Your task to perform on an android device: Clear the shopping cart on newegg. Search for "dell xps" on newegg, select the first entry, add it to the cart, then select checkout. Image 0: 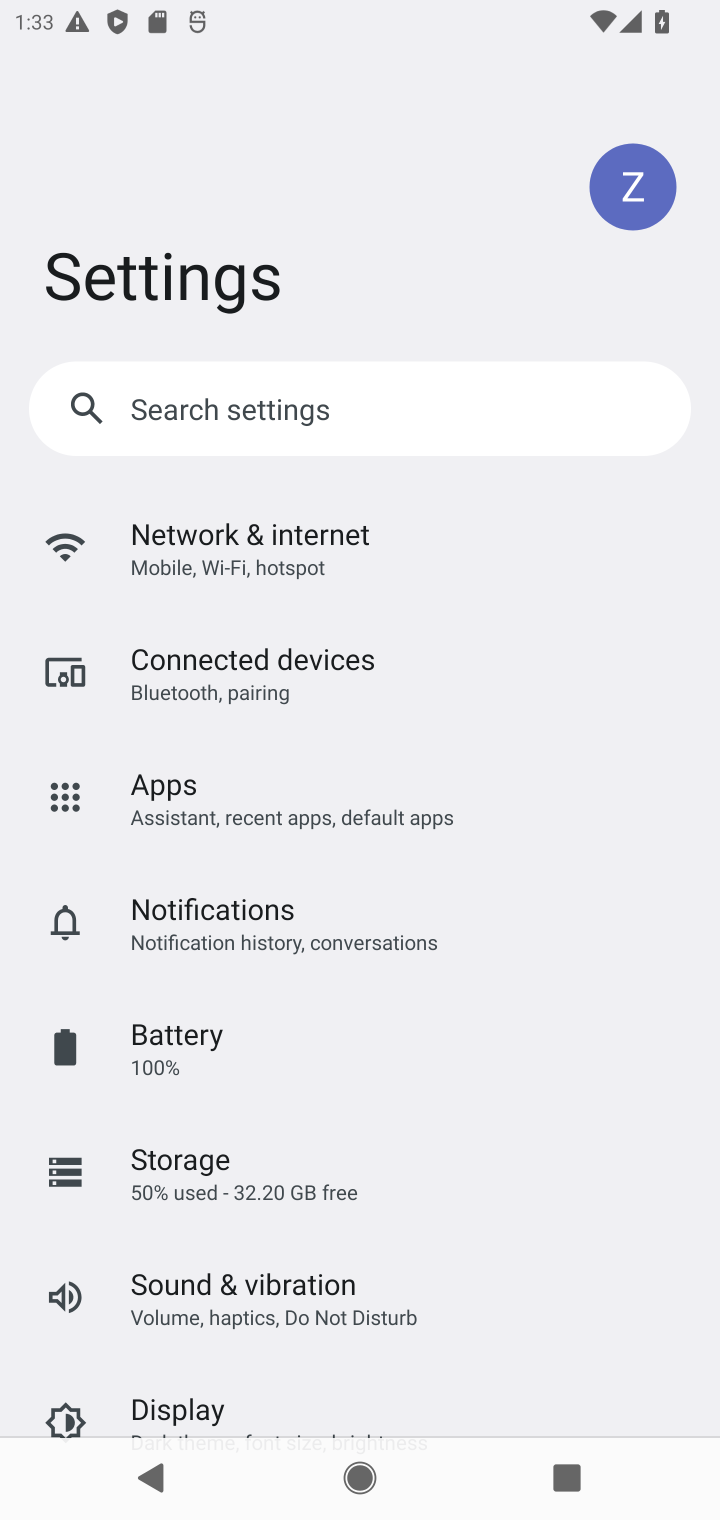
Step 0: press home button
Your task to perform on an android device: Clear the shopping cart on newegg. Search for "dell xps" on newegg, select the first entry, add it to the cart, then select checkout. Image 1: 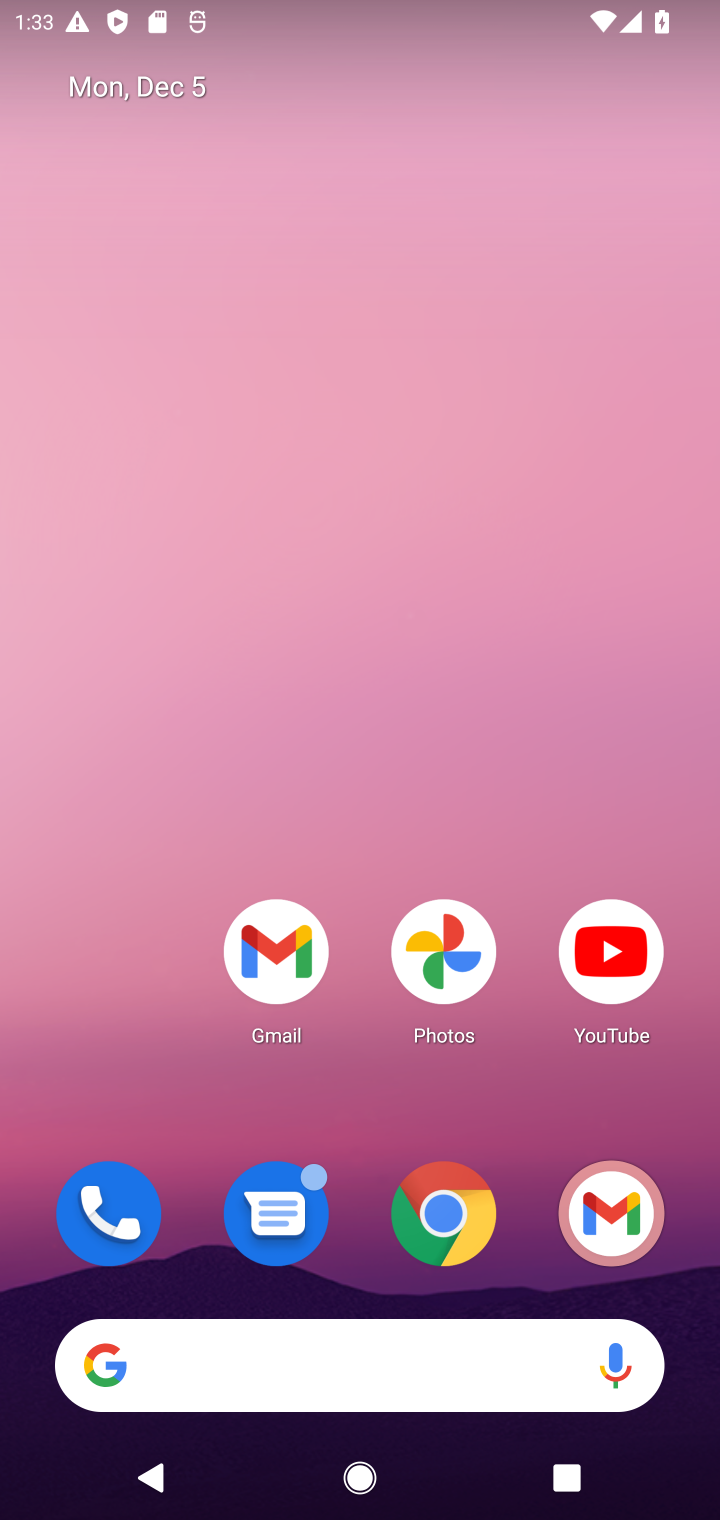
Step 1: click (453, 1223)
Your task to perform on an android device: Clear the shopping cart on newegg. Search for "dell xps" on newegg, select the first entry, add it to the cart, then select checkout. Image 2: 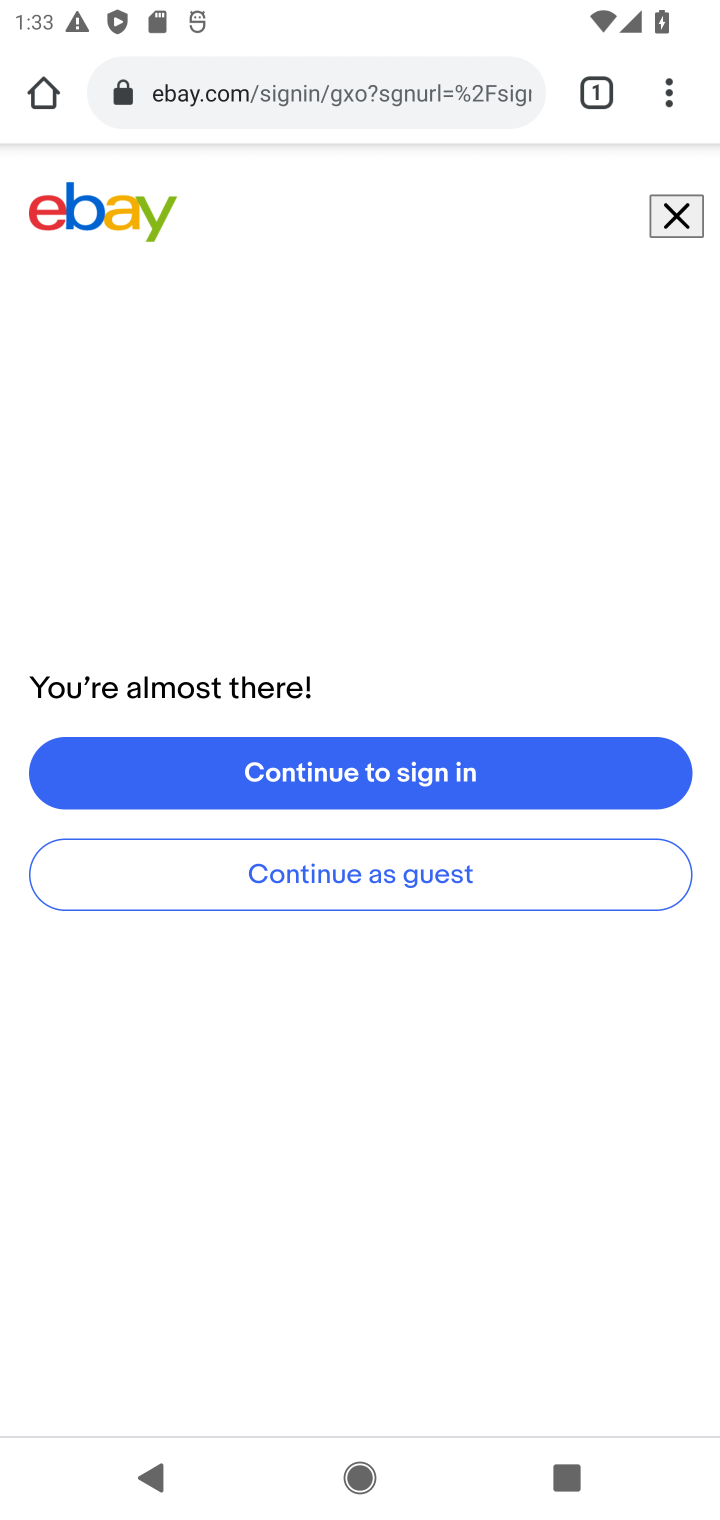
Step 2: click (297, 90)
Your task to perform on an android device: Clear the shopping cart on newegg. Search for "dell xps" on newegg, select the first entry, add it to the cart, then select checkout. Image 3: 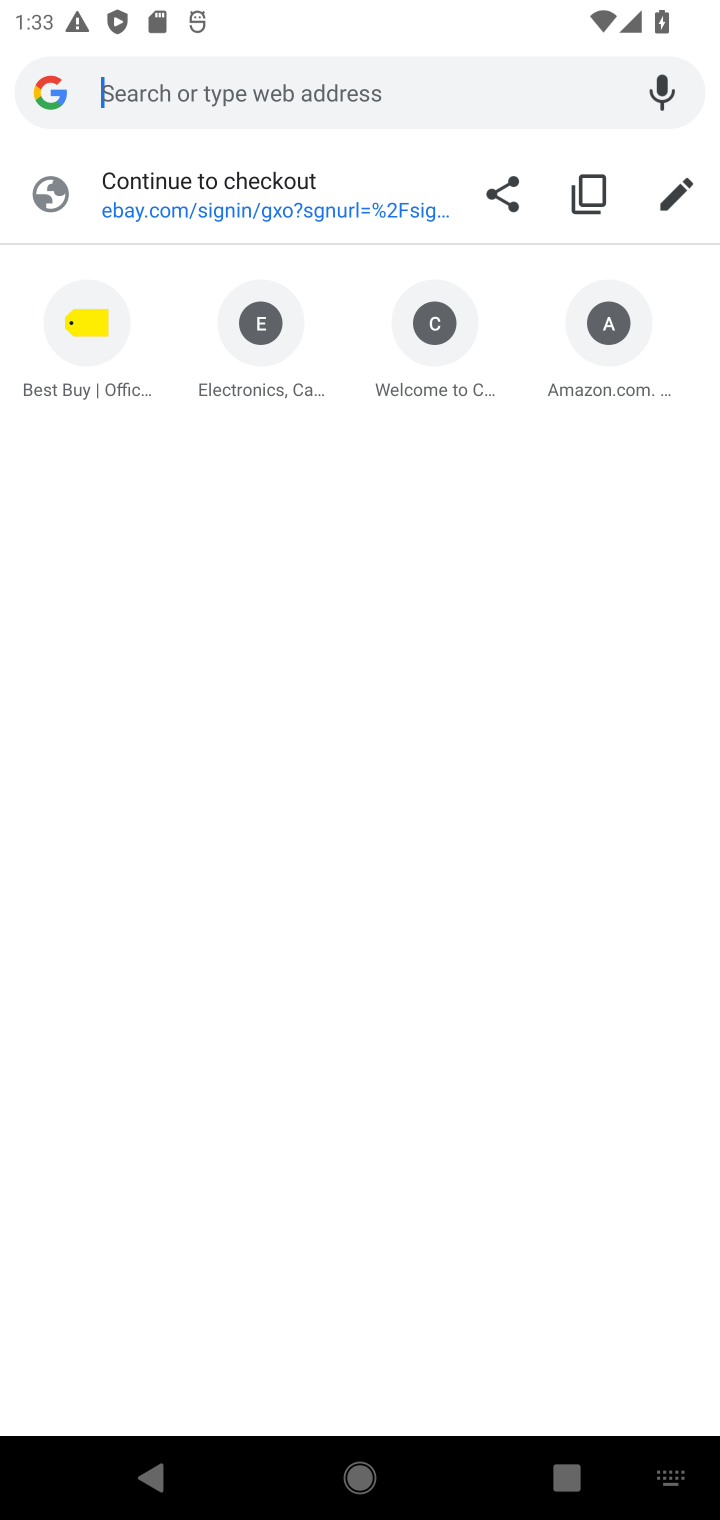
Step 3: type "newegg.com"
Your task to perform on an android device: Clear the shopping cart on newegg. Search for "dell xps" on newegg, select the first entry, add it to the cart, then select checkout. Image 4: 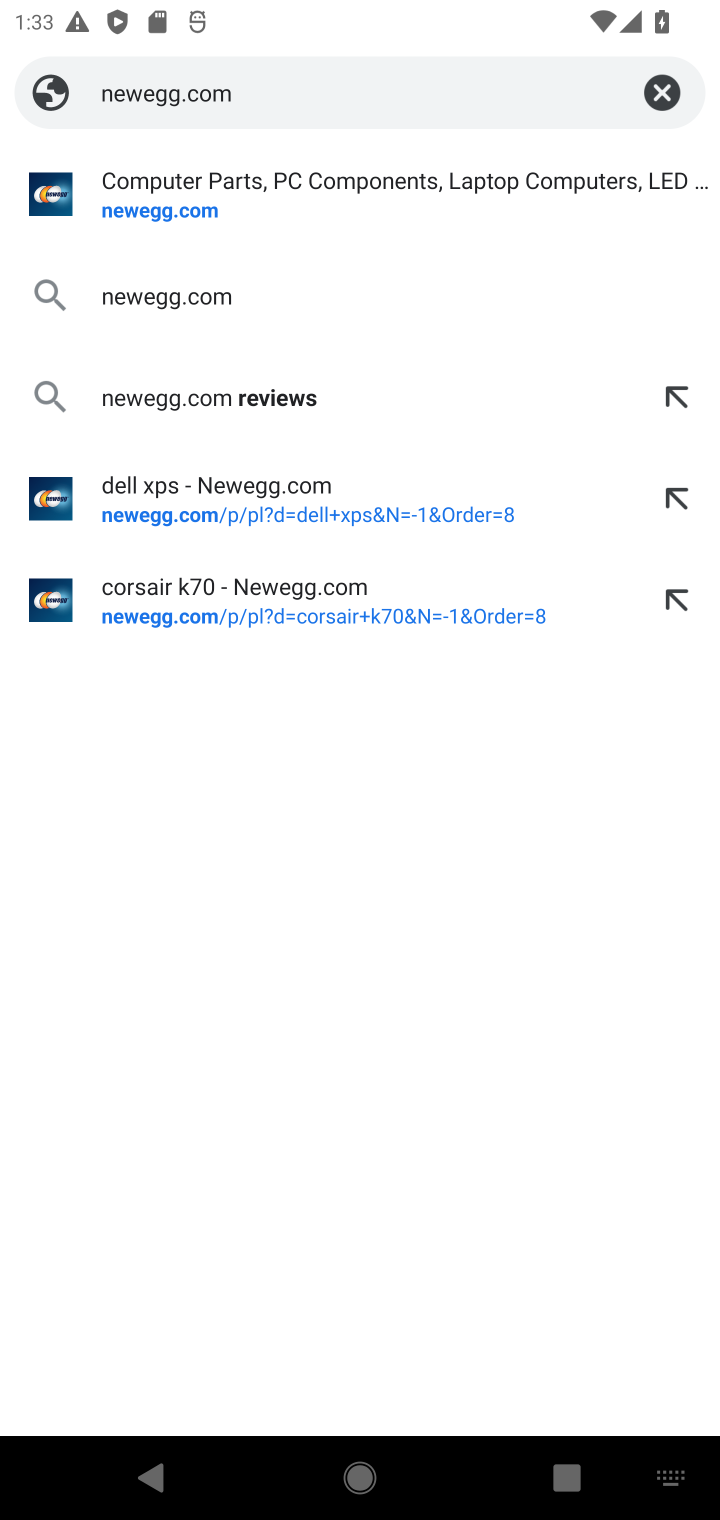
Step 4: click (152, 221)
Your task to perform on an android device: Clear the shopping cart on newegg. Search for "dell xps" on newegg, select the first entry, add it to the cart, then select checkout. Image 5: 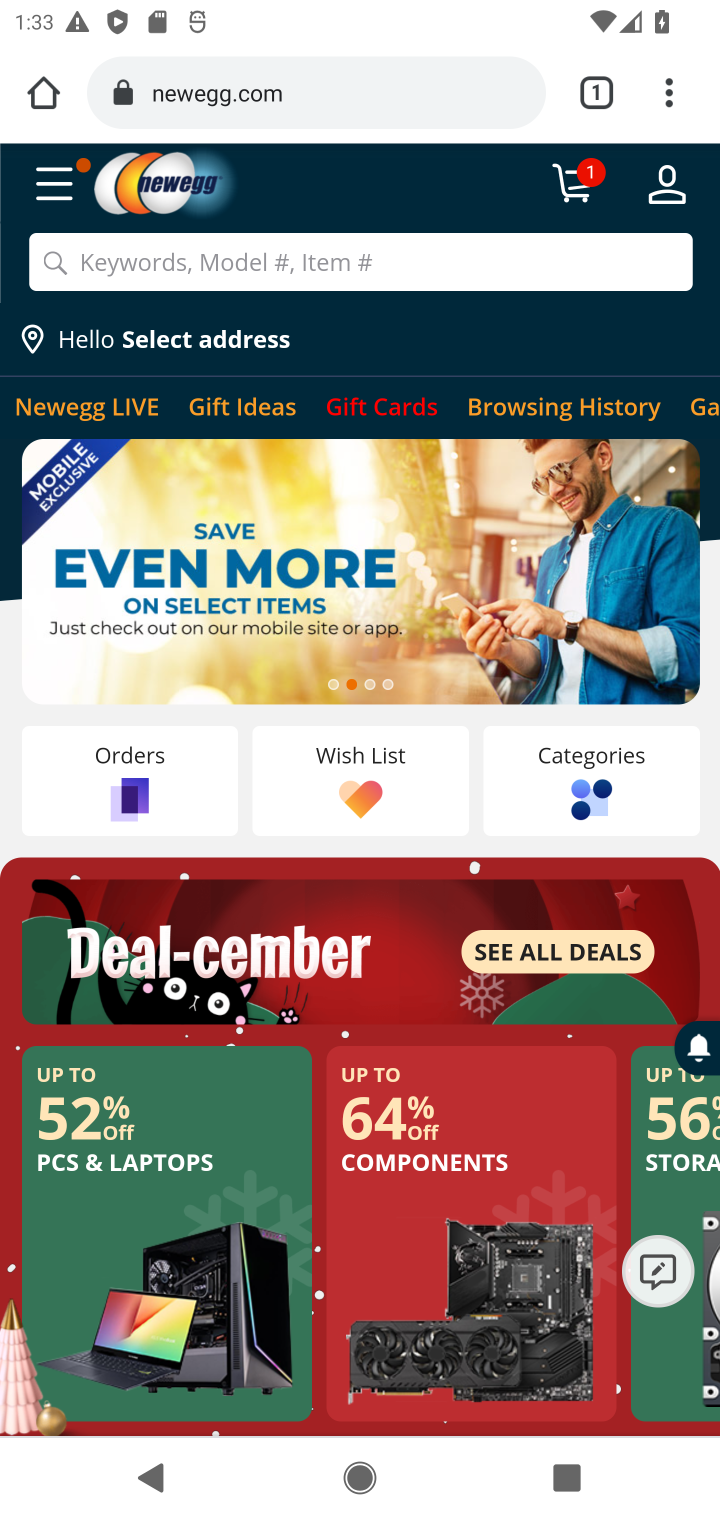
Step 5: click (583, 198)
Your task to perform on an android device: Clear the shopping cart on newegg. Search for "dell xps" on newegg, select the first entry, add it to the cart, then select checkout. Image 6: 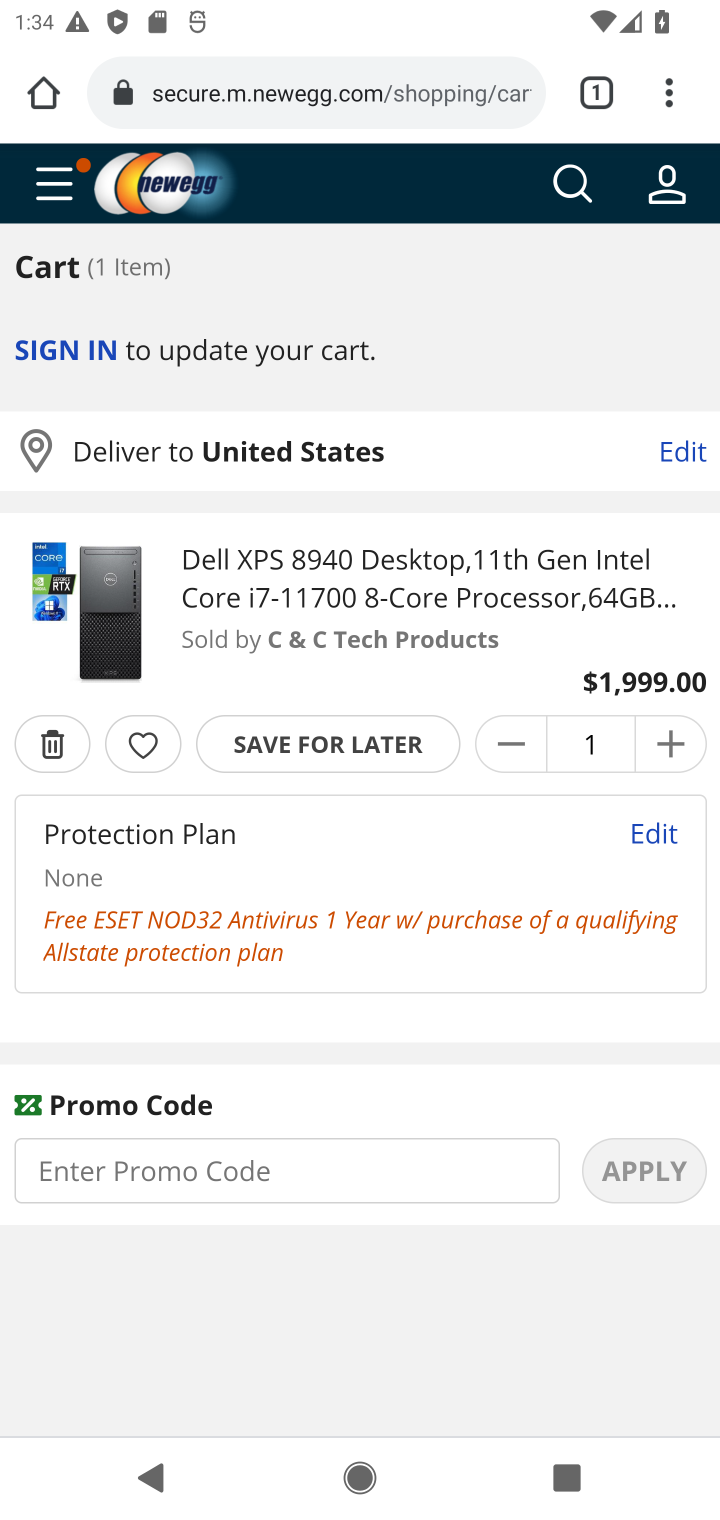
Step 6: click (53, 762)
Your task to perform on an android device: Clear the shopping cart on newegg. Search for "dell xps" on newegg, select the first entry, add it to the cart, then select checkout. Image 7: 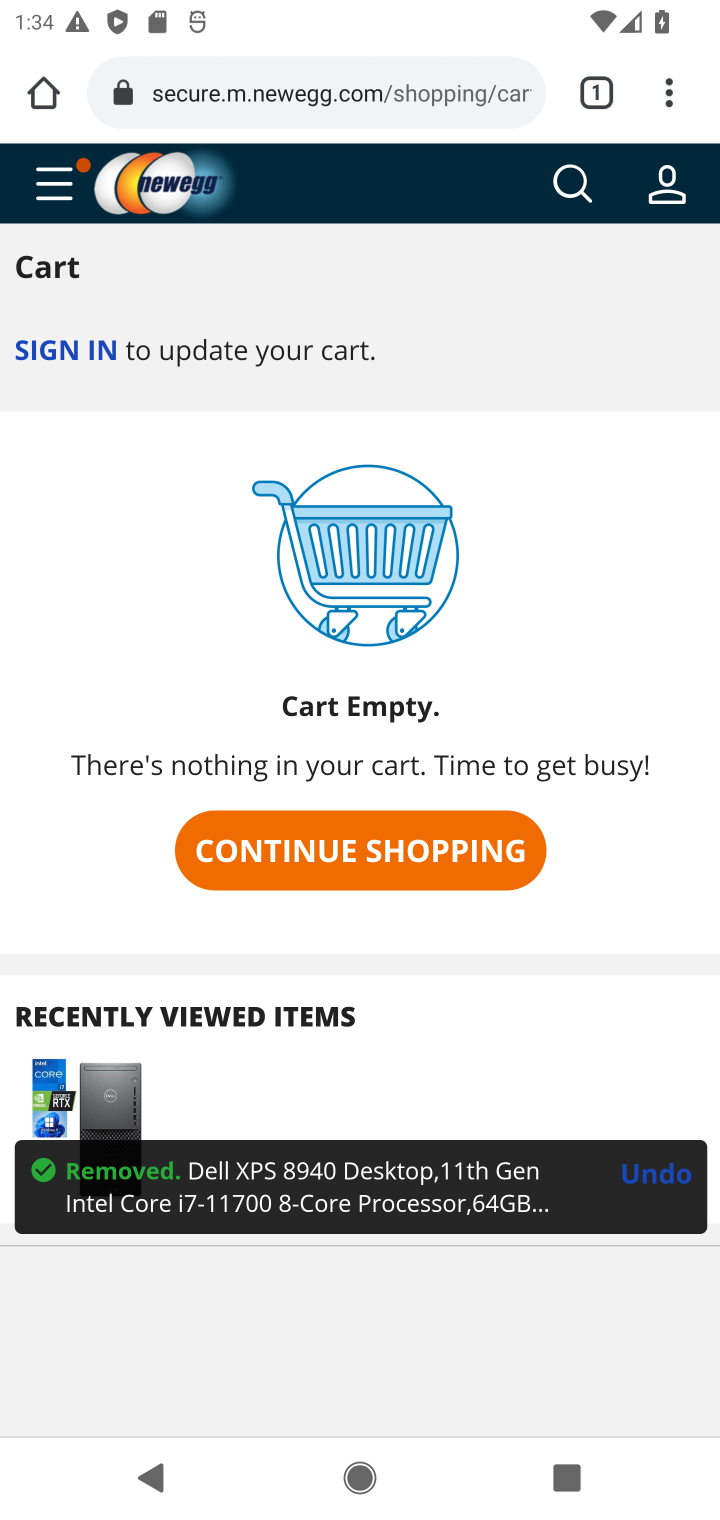
Step 7: click (564, 176)
Your task to perform on an android device: Clear the shopping cart on newegg. Search for "dell xps" on newegg, select the first entry, add it to the cart, then select checkout. Image 8: 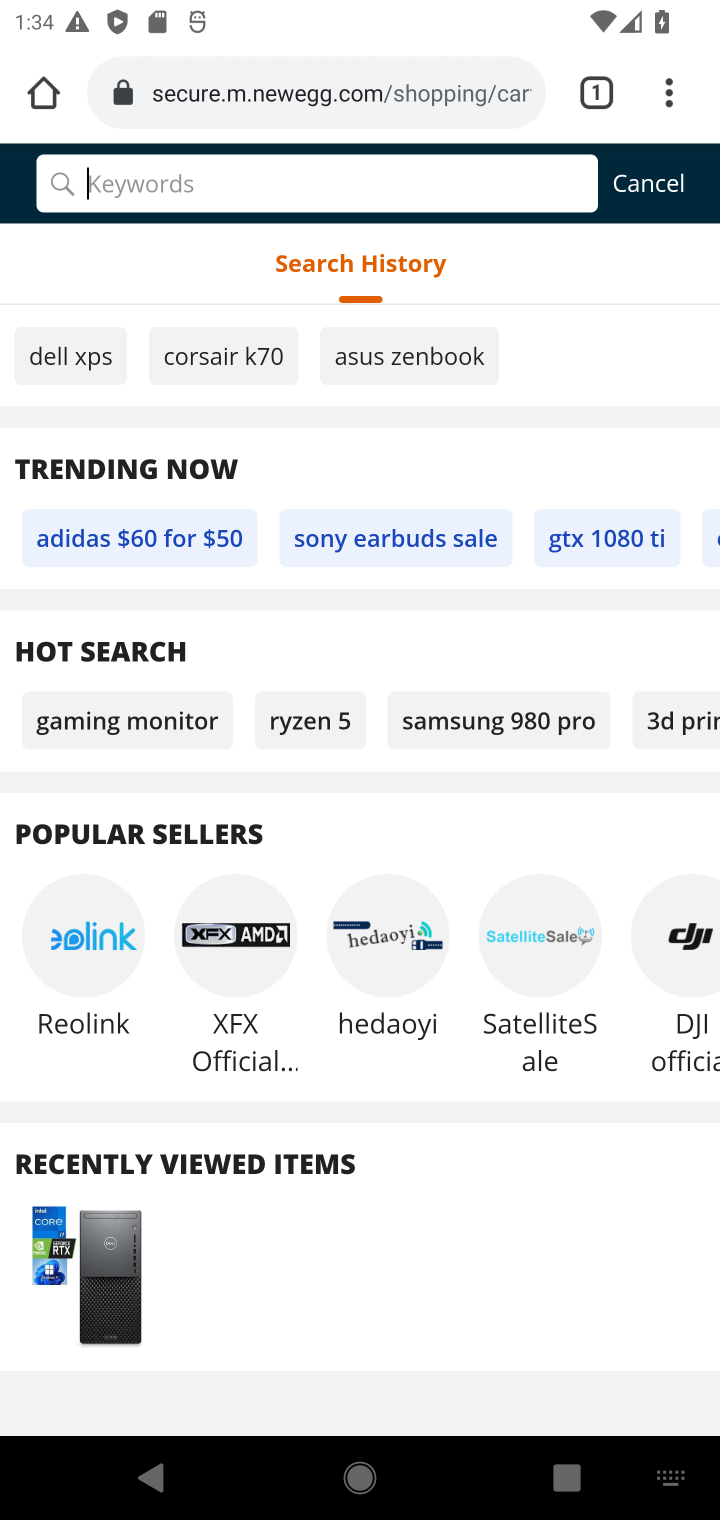
Step 8: type "dell xps"
Your task to perform on an android device: Clear the shopping cart on newegg. Search for "dell xps" on newegg, select the first entry, add it to the cart, then select checkout. Image 9: 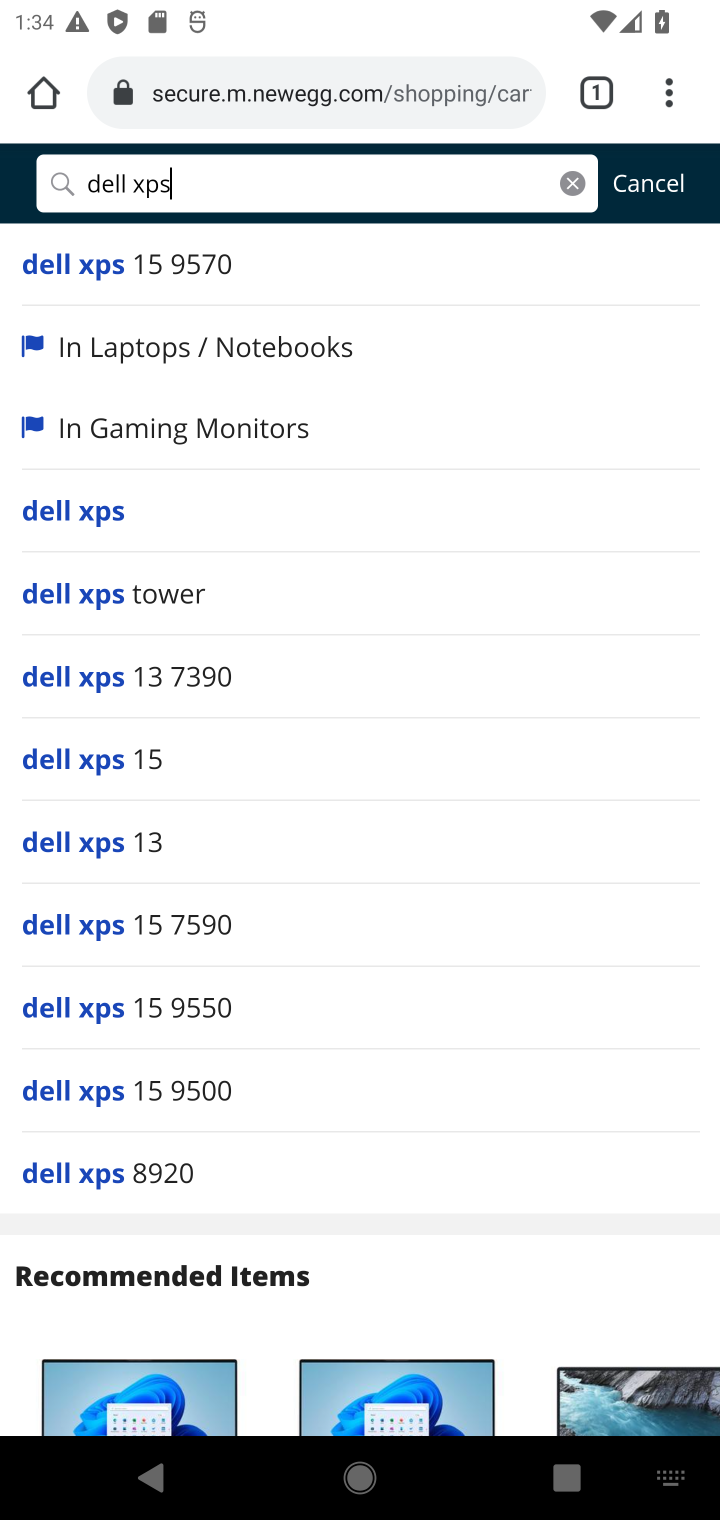
Step 9: click (101, 521)
Your task to perform on an android device: Clear the shopping cart on newegg. Search for "dell xps" on newegg, select the first entry, add it to the cart, then select checkout. Image 10: 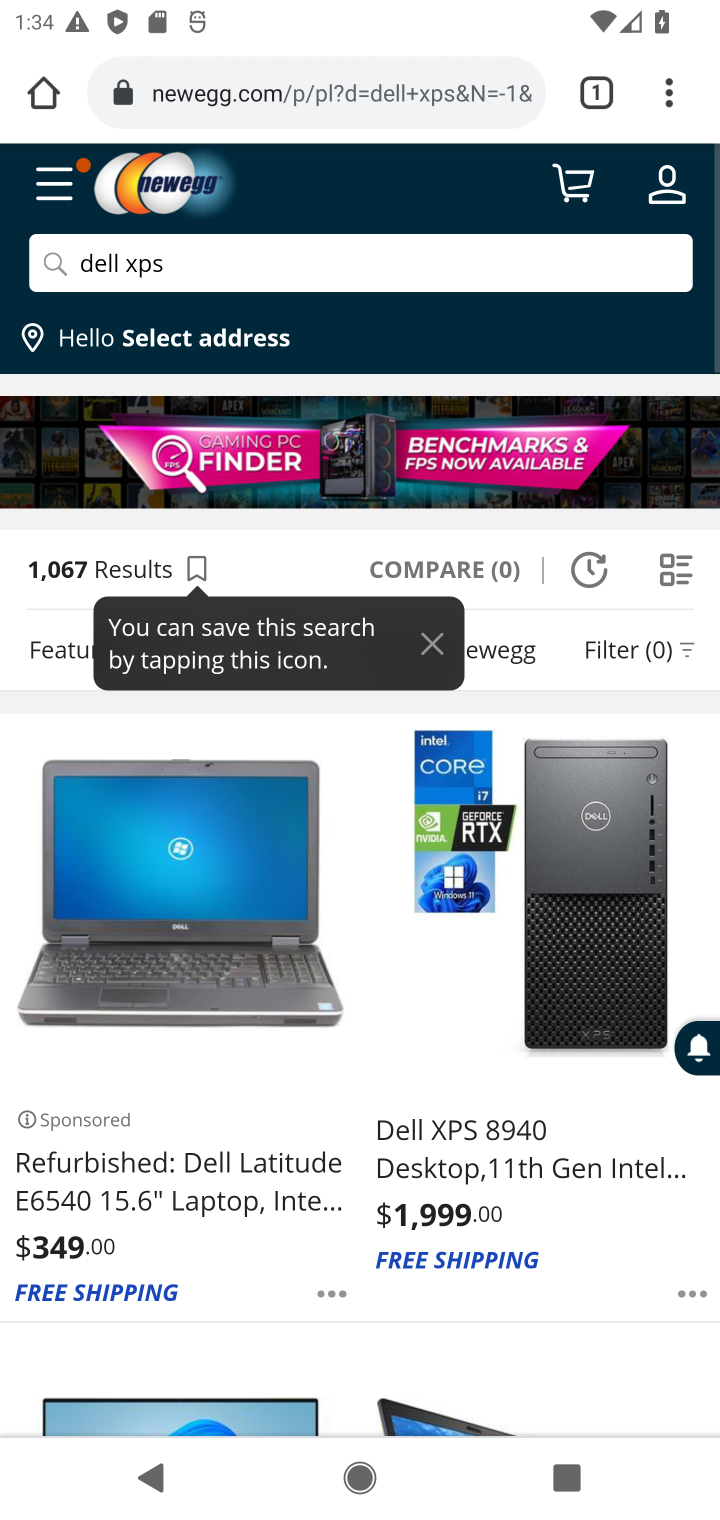
Step 10: task complete